Your task to perform on an android device: turn off notifications settings in the gmail app Image 0: 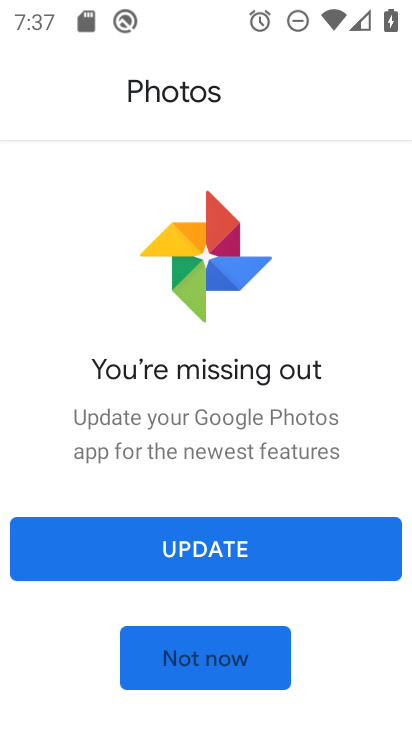
Step 0: press home button
Your task to perform on an android device: turn off notifications settings in the gmail app Image 1: 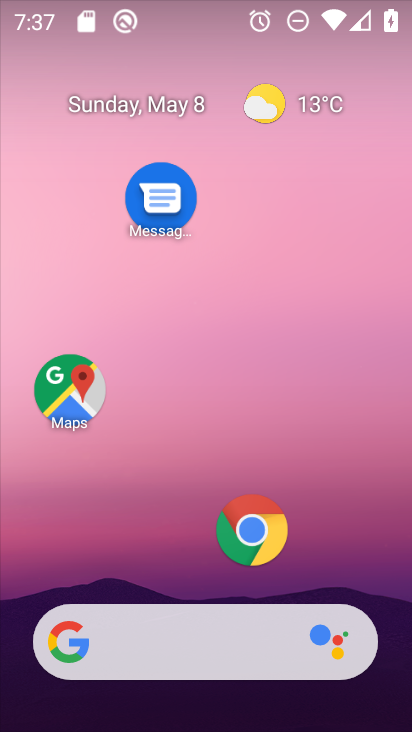
Step 1: drag from (189, 583) to (242, 3)
Your task to perform on an android device: turn off notifications settings in the gmail app Image 2: 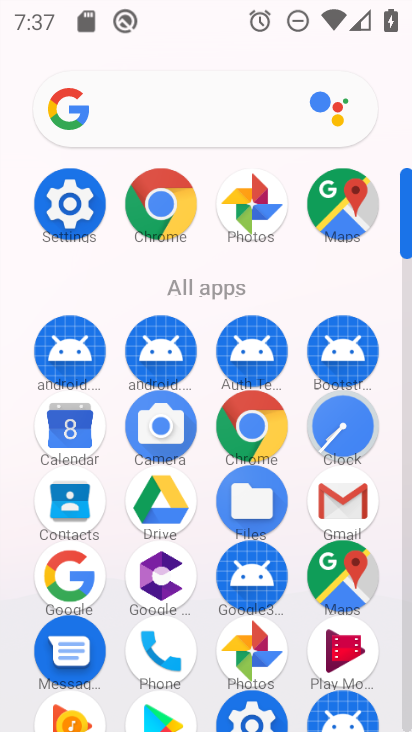
Step 2: click (343, 501)
Your task to perform on an android device: turn off notifications settings in the gmail app Image 3: 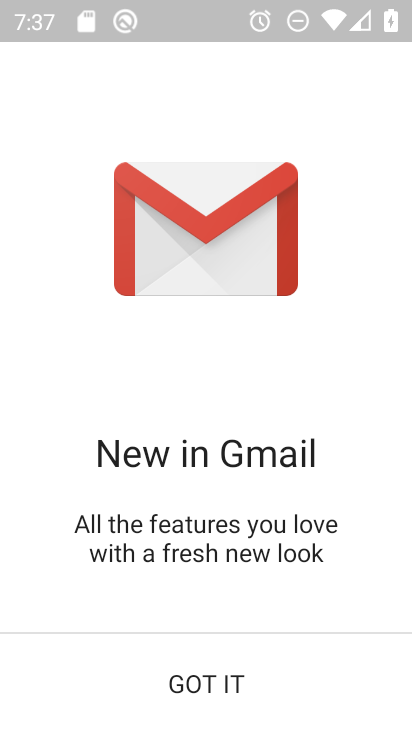
Step 3: click (173, 678)
Your task to perform on an android device: turn off notifications settings in the gmail app Image 4: 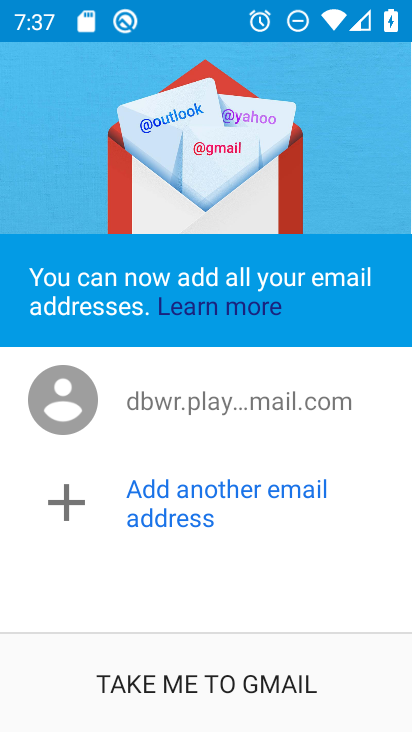
Step 4: click (198, 685)
Your task to perform on an android device: turn off notifications settings in the gmail app Image 5: 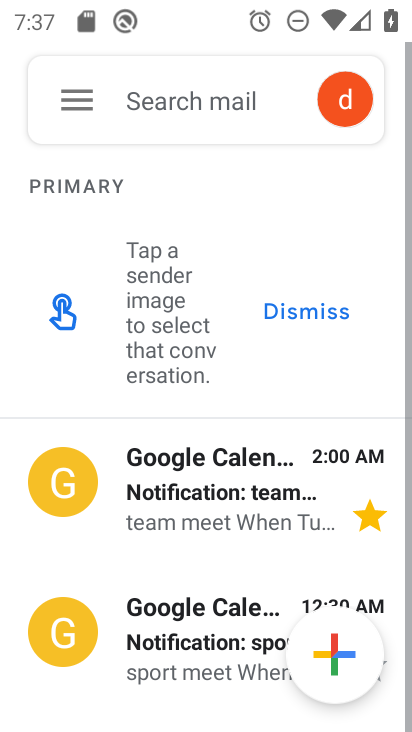
Step 5: click (76, 105)
Your task to perform on an android device: turn off notifications settings in the gmail app Image 6: 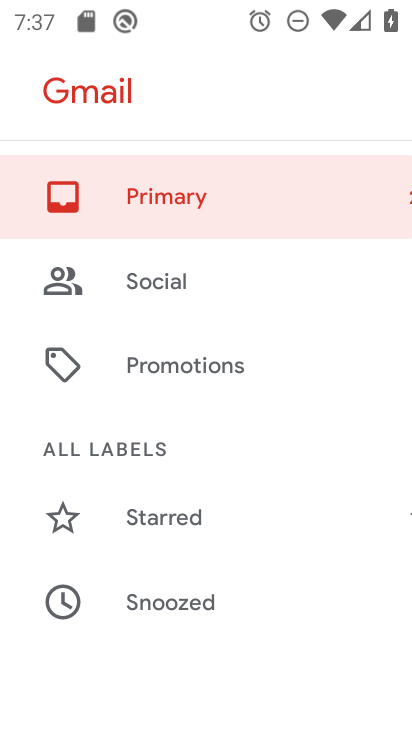
Step 6: drag from (228, 542) to (235, 160)
Your task to perform on an android device: turn off notifications settings in the gmail app Image 7: 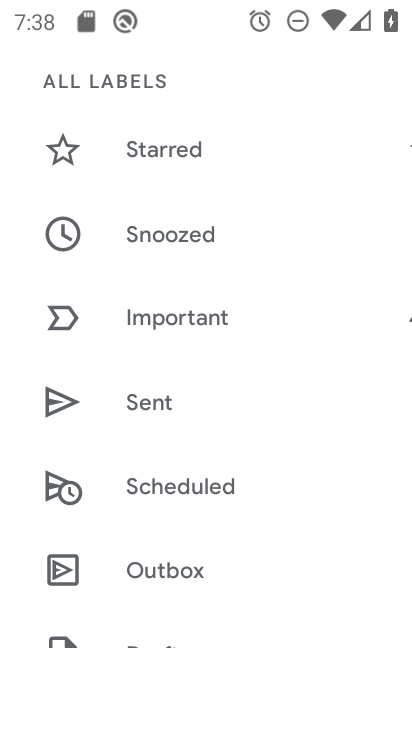
Step 7: drag from (196, 564) to (238, 81)
Your task to perform on an android device: turn off notifications settings in the gmail app Image 8: 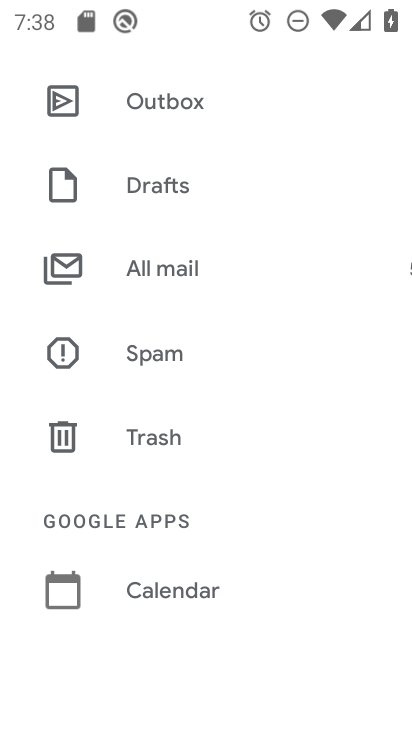
Step 8: drag from (172, 486) to (198, 116)
Your task to perform on an android device: turn off notifications settings in the gmail app Image 9: 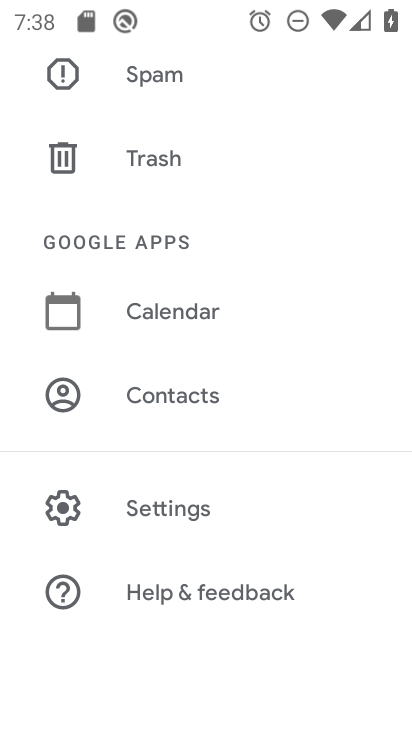
Step 9: click (183, 500)
Your task to perform on an android device: turn off notifications settings in the gmail app Image 10: 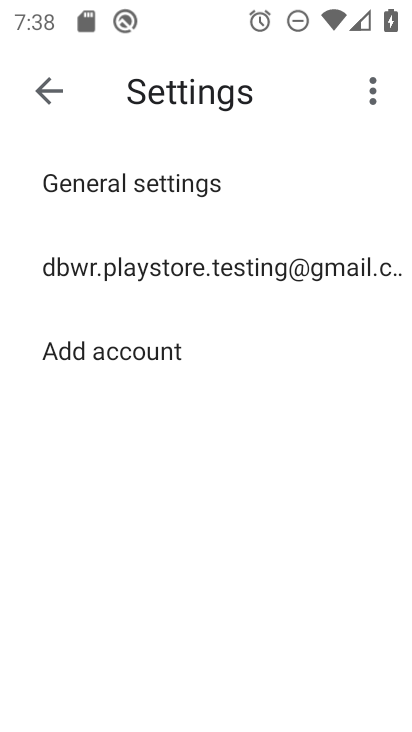
Step 10: click (144, 156)
Your task to perform on an android device: turn off notifications settings in the gmail app Image 11: 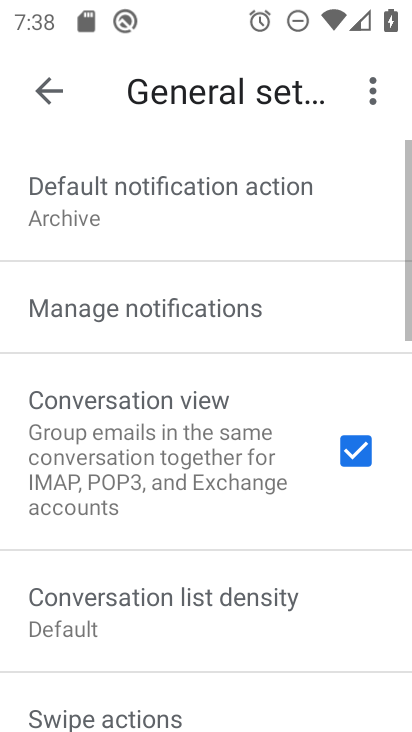
Step 11: click (228, 297)
Your task to perform on an android device: turn off notifications settings in the gmail app Image 12: 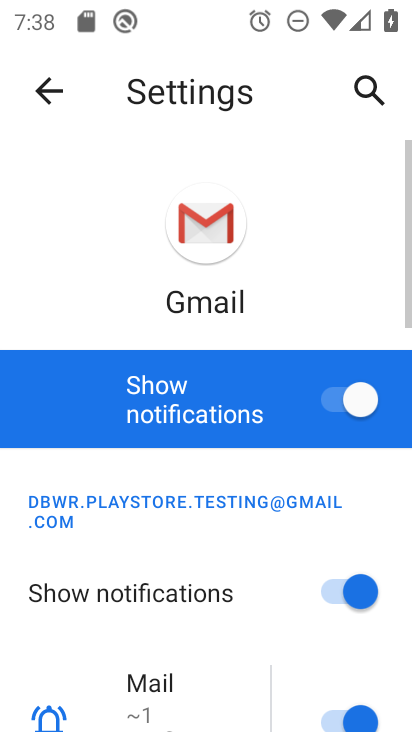
Step 12: click (340, 408)
Your task to perform on an android device: turn off notifications settings in the gmail app Image 13: 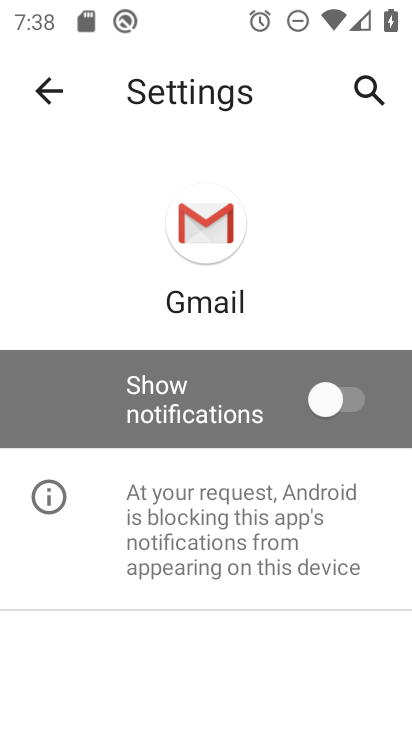
Step 13: task complete